Your task to perform on an android device: Open Yahoo.com Image 0: 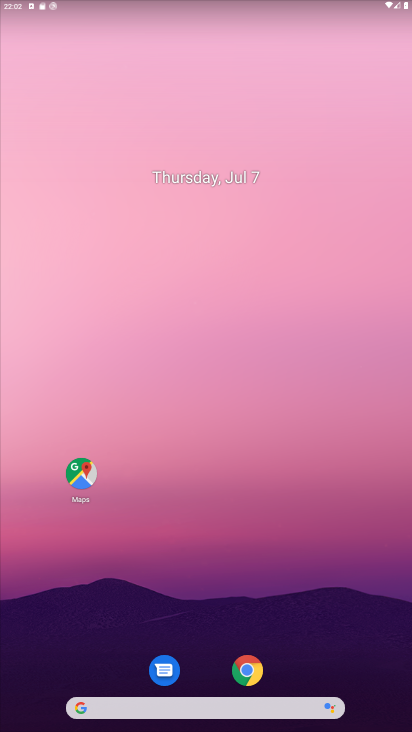
Step 0: click (265, 675)
Your task to perform on an android device: Open Yahoo.com Image 1: 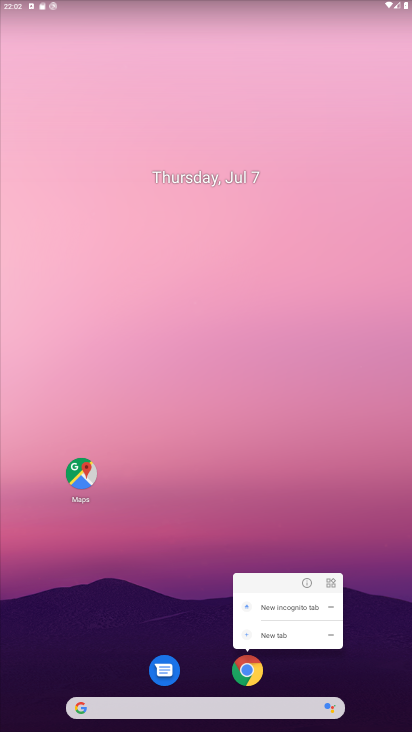
Step 1: click (248, 671)
Your task to perform on an android device: Open Yahoo.com Image 2: 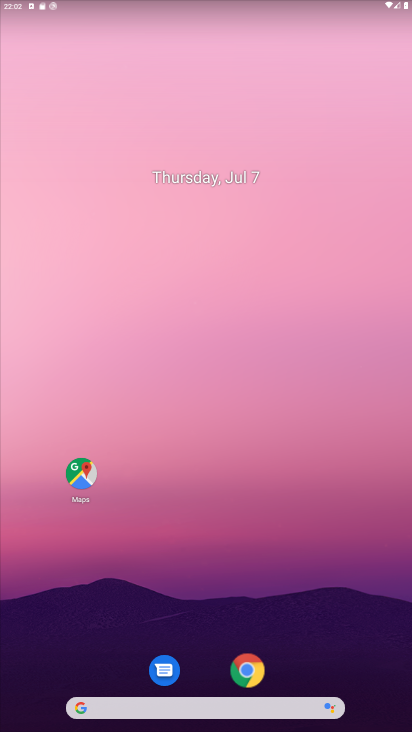
Step 2: click (249, 667)
Your task to perform on an android device: Open Yahoo.com Image 3: 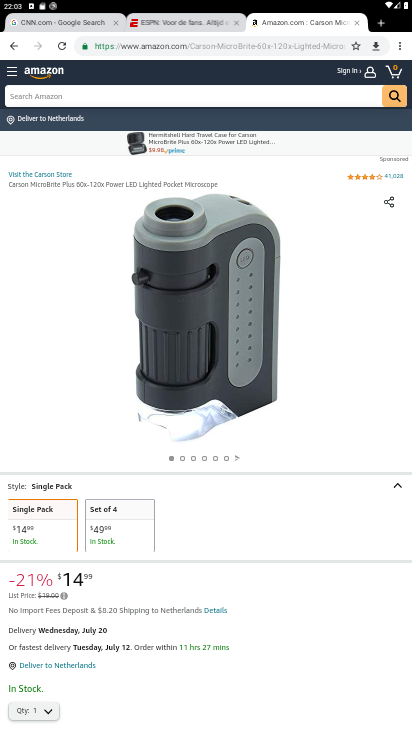
Step 3: task complete